Your task to perform on an android device: turn off notifications in google photos Image 0: 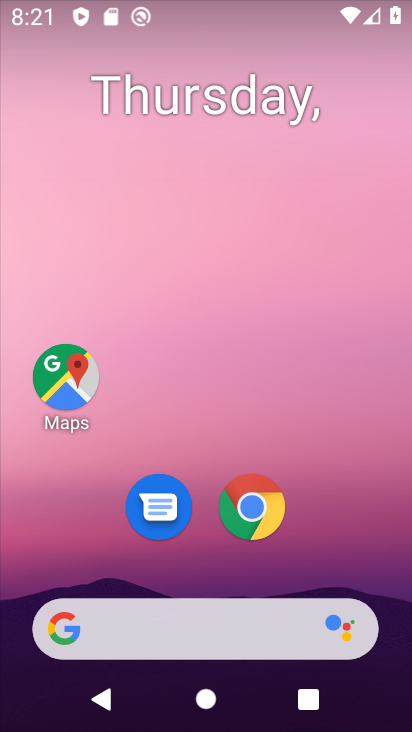
Step 0: drag from (212, 569) to (276, 36)
Your task to perform on an android device: turn off notifications in google photos Image 1: 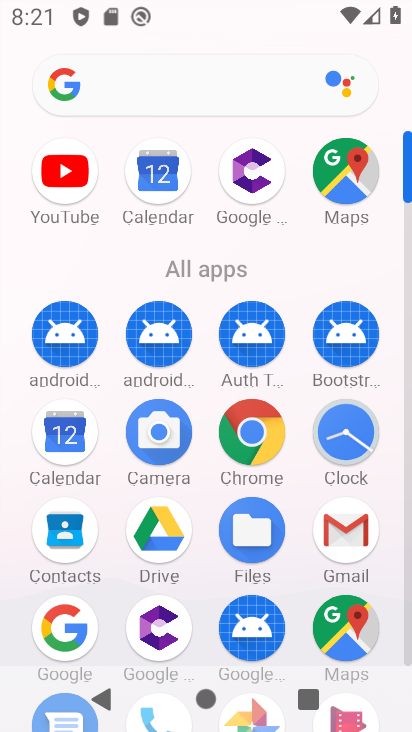
Step 1: drag from (259, 548) to (308, 146)
Your task to perform on an android device: turn off notifications in google photos Image 2: 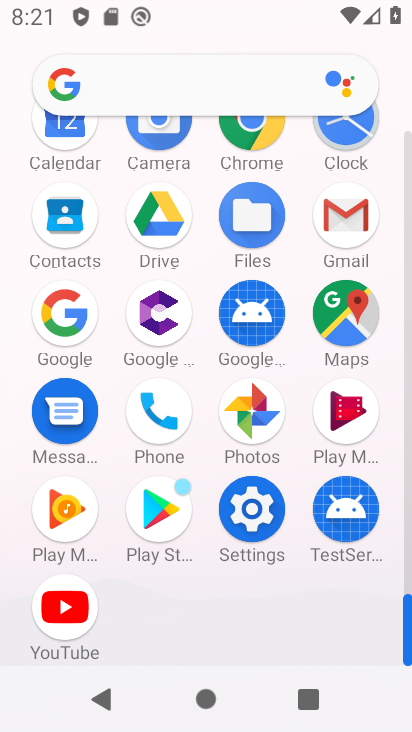
Step 2: click (261, 425)
Your task to perform on an android device: turn off notifications in google photos Image 3: 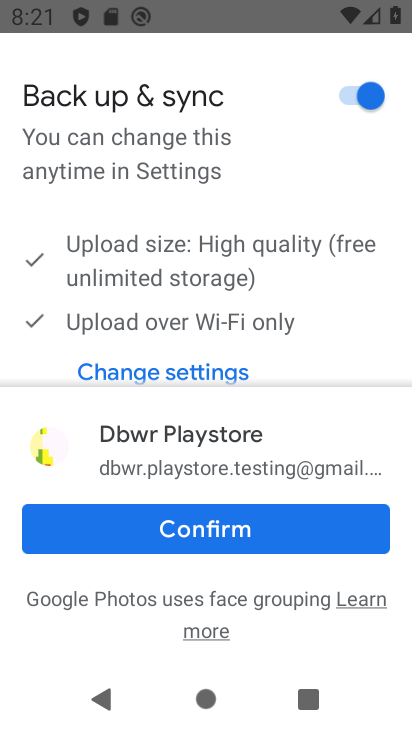
Step 3: click (232, 520)
Your task to perform on an android device: turn off notifications in google photos Image 4: 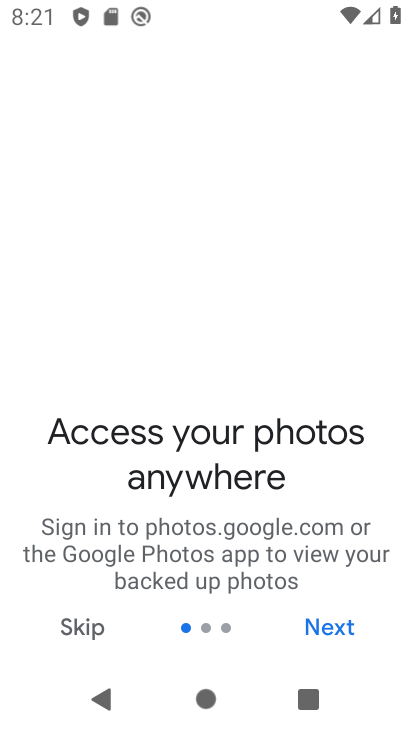
Step 4: click (83, 632)
Your task to perform on an android device: turn off notifications in google photos Image 5: 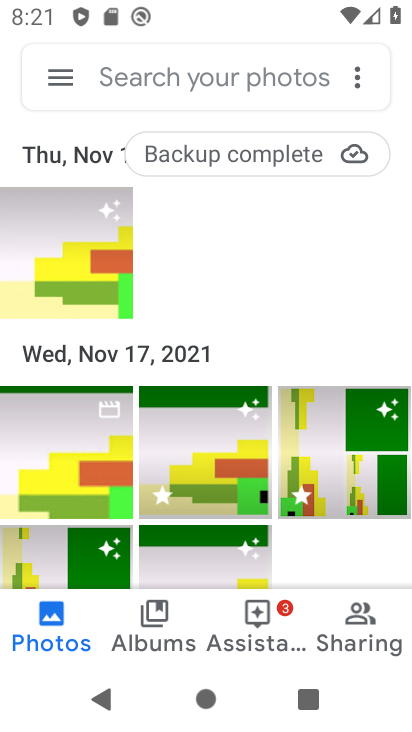
Step 5: click (31, 89)
Your task to perform on an android device: turn off notifications in google photos Image 6: 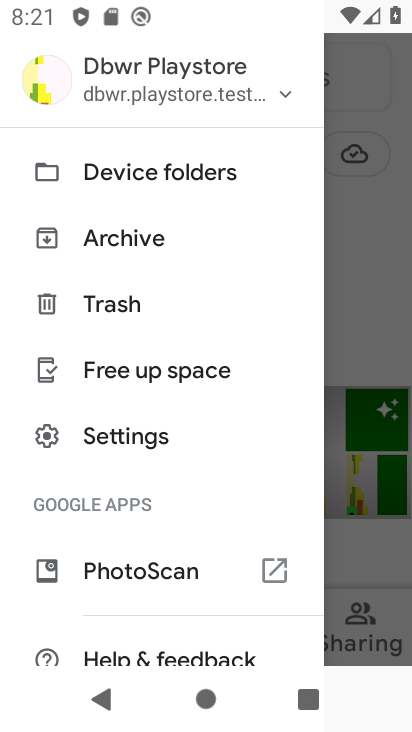
Step 6: click (126, 450)
Your task to perform on an android device: turn off notifications in google photos Image 7: 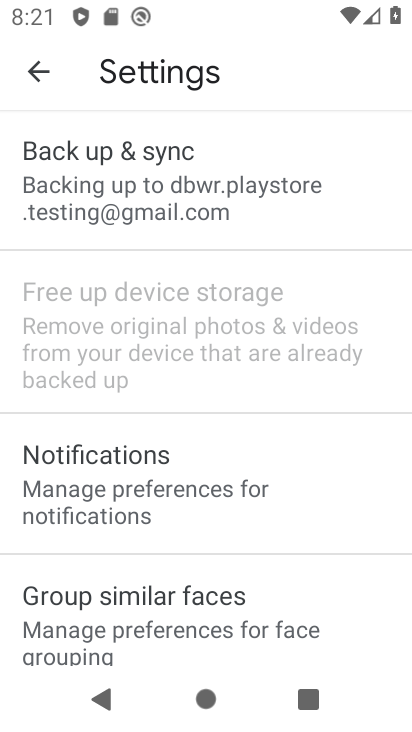
Step 7: click (107, 452)
Your task to perform on an android device: turn off notifications in google photos Image 8: 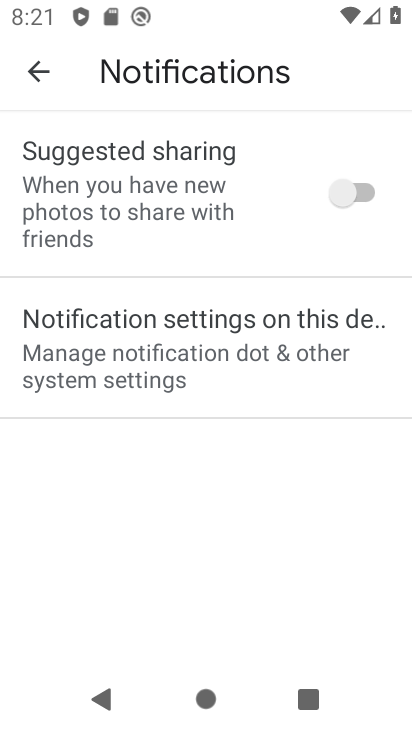
Step 8: click (159, 330)
Your task to perform on an android device: turn off notifications in google photos Image 9: 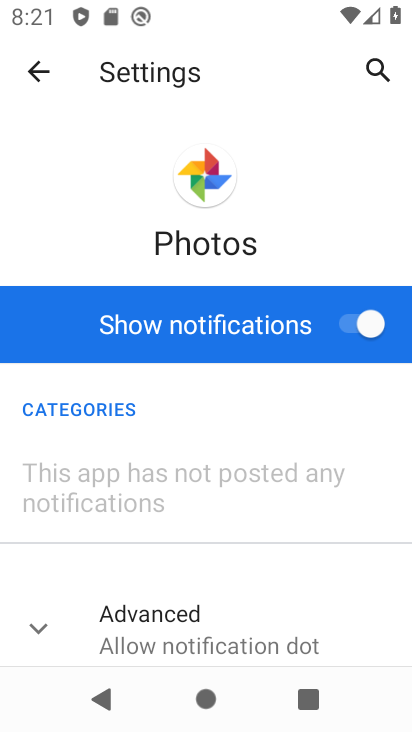
Step 9: click (325, 321)
Your task to perform on an android device: turn off notifications in google photos Image 10: 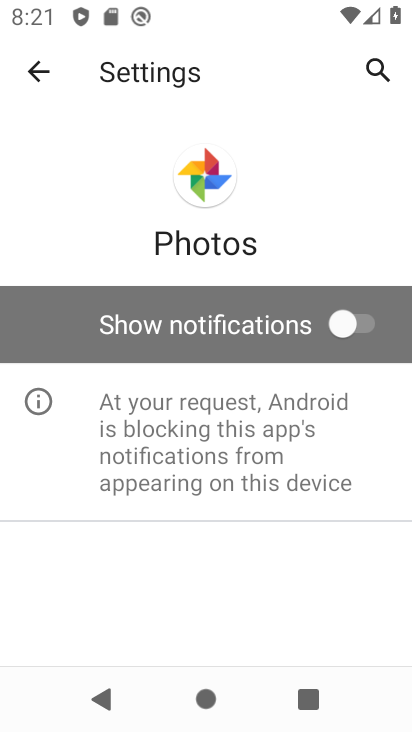
Step 10: task complete